Your task to perform on an android device: When is my next meeting? Image 0: 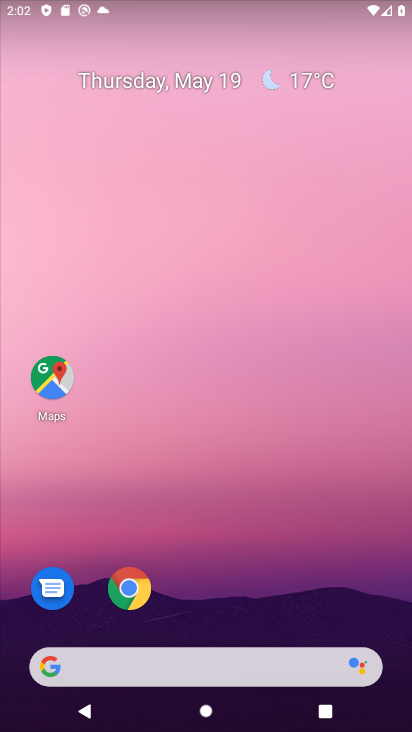
Step 0: drag from (310, 566) to (277, 118)
Your task to perform on an android device: When is my next meeting? Image 1: 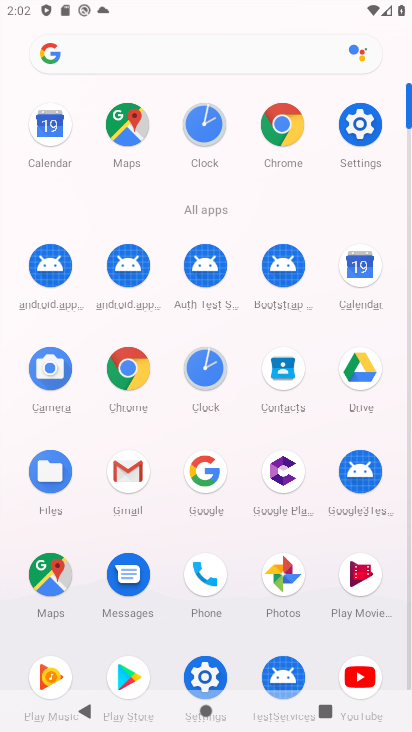
Step 1: click (50, 129)
Your task to perform on an android device: When is my next meeting? Image 2: 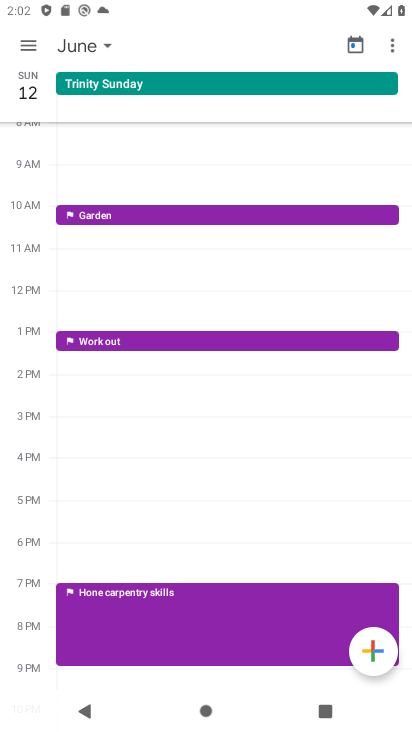
Step 2: click (70, 76)
Your task to perform on an android device: When is my next meeting? Image 3: 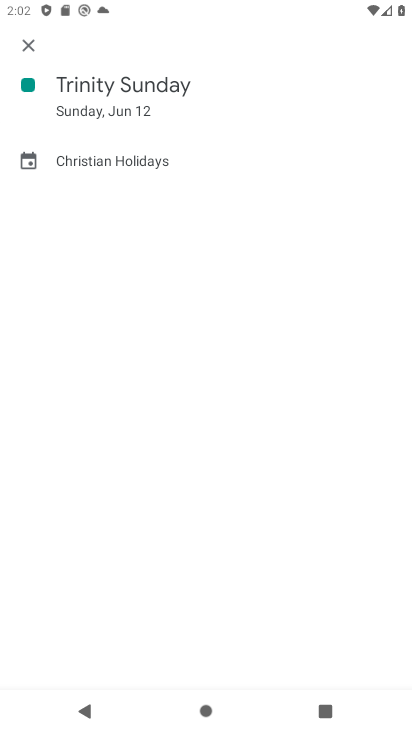
Step 3: click (32, 46)
Your task to perform on an android device: When is my next meeting? Image 4: 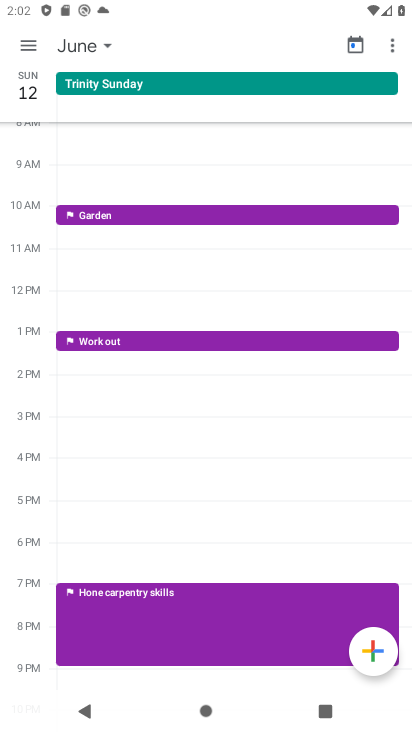
Step 4: click (60, 47)
Your task to perform on an android device: When is my next meeting? Image 5: 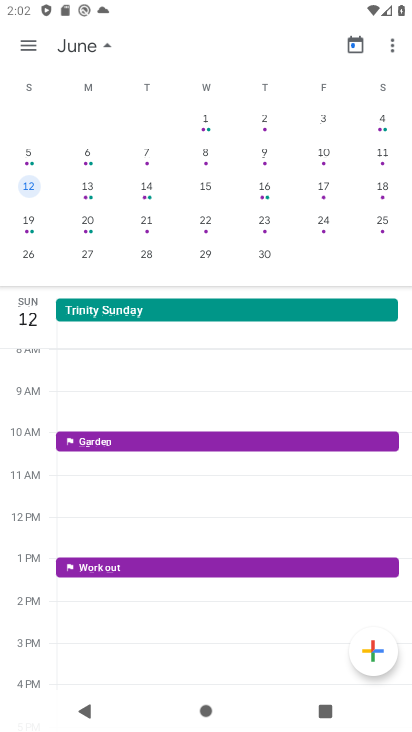
Step 5: drag from (39, 113) to (398, 139)
Your task to perform on an android device: When is my next meeting? Image 6: 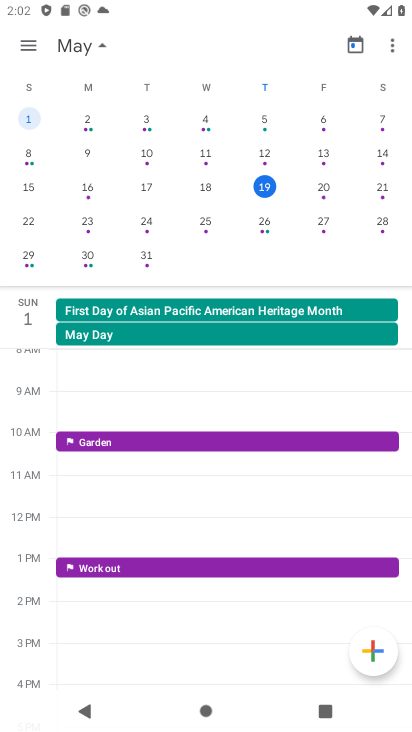
Step 6: click (258, 180)
Your task to perform on an android device: When is my next meeting? Image 7: 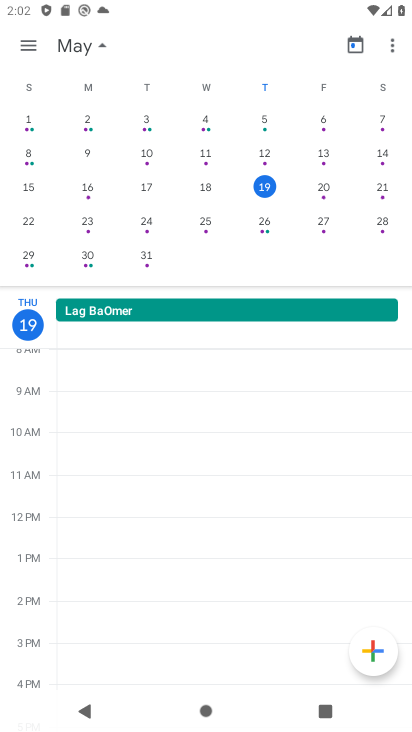
Step 7: click (12, 49)
Your task to perform on an android device: When is my next meeting? Image 8: 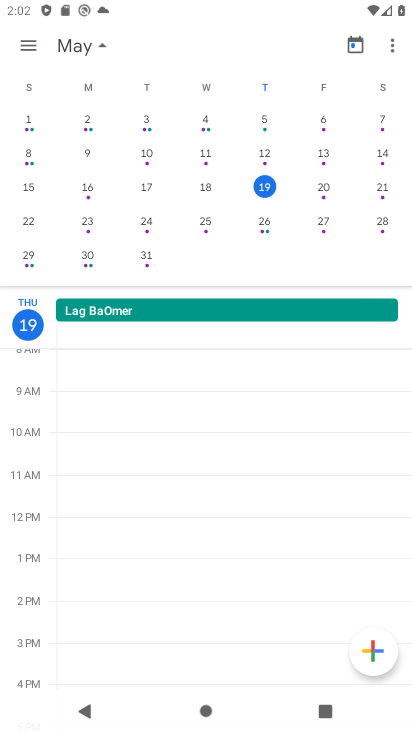
Step 8: click (28, 46)
Your task to perform on an android device: When is my next meeting? Image 9: 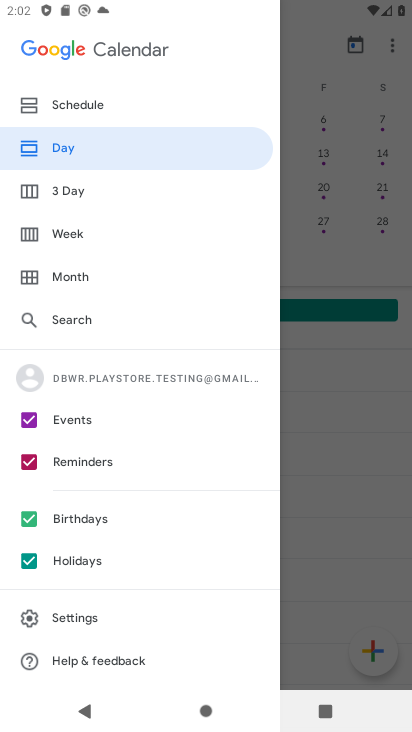
Step 9: click (67, 195)
Your task to perform on an android device: When is my next meeting? Image 10: 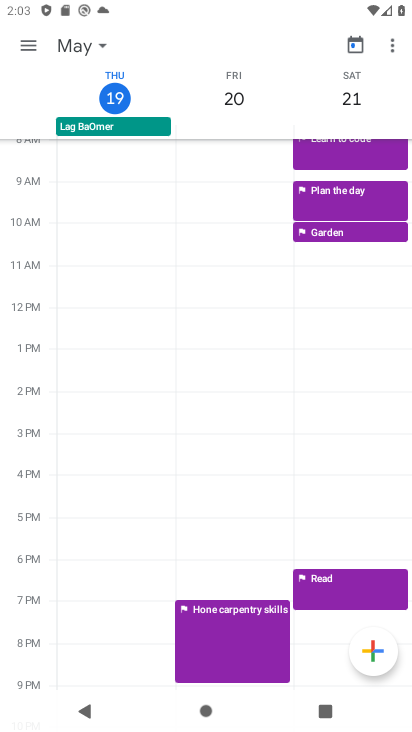
Step 10: task complete